Your task to perform on an android device: What is the news today? Image 0: 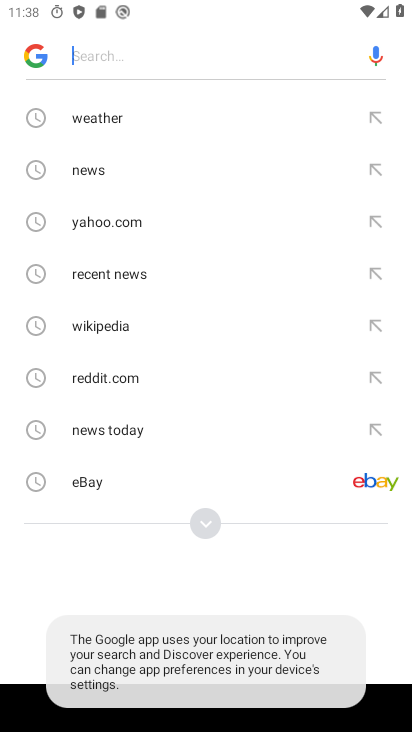
Step 0: press home button
Your task to perform on an android device: What is the news today? Image 1: 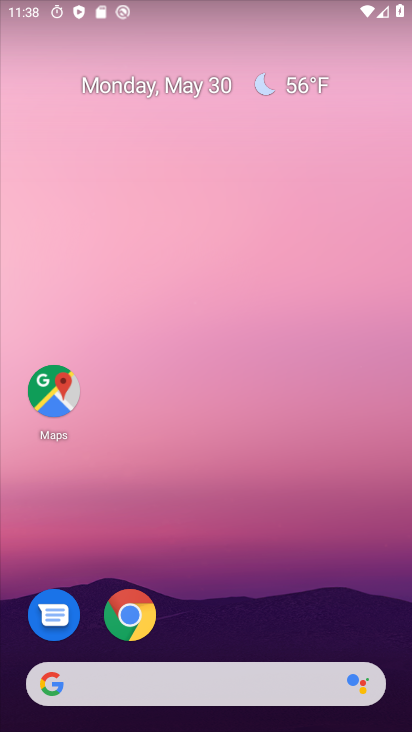
Step 1: task complete